Your task to perform on an android device: Open wifi settings Image 0: 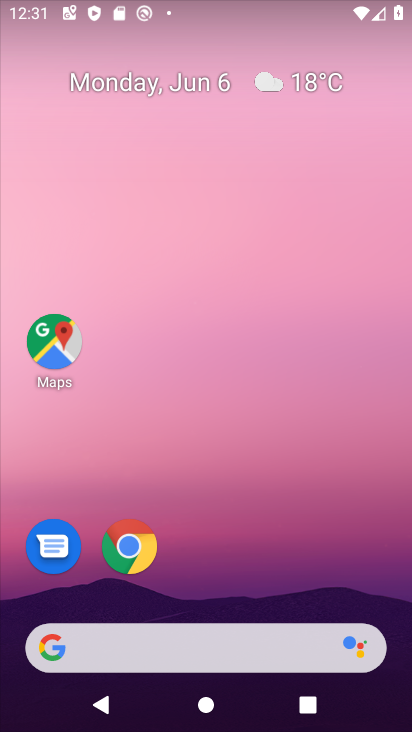
Step 0: drag from (227, 416) to (226, 134)
Your task to perform on an android device: Open wifi settings Image 1: 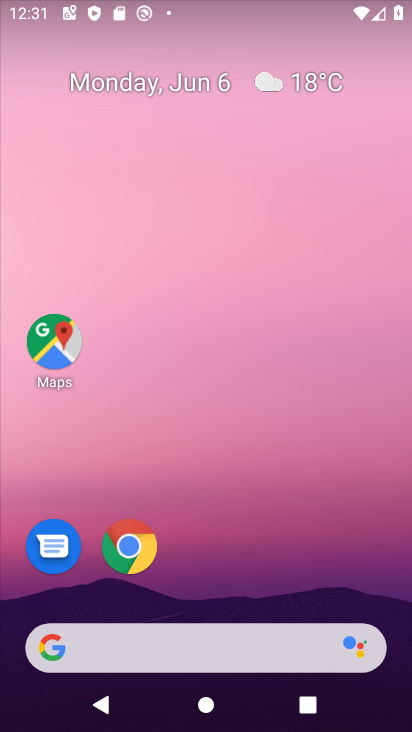
Step 1: drag from (216, 553) to (214, 110)
Your task to perform on an android device: Open wifi settings Image 2: 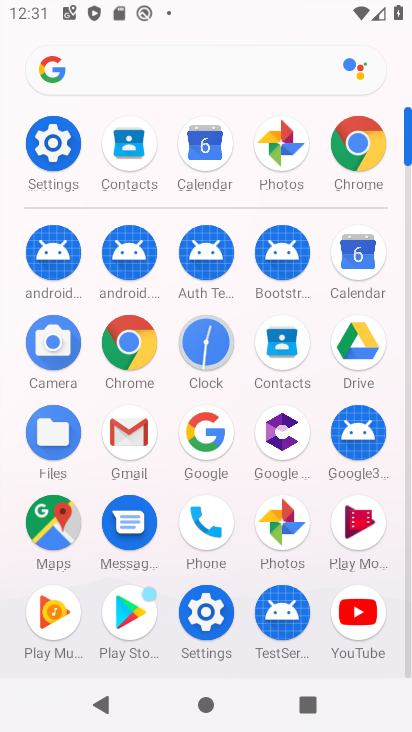
Step 2: click (47, 146)
Your task to perform on an android device: Open wifi settings Image 3: 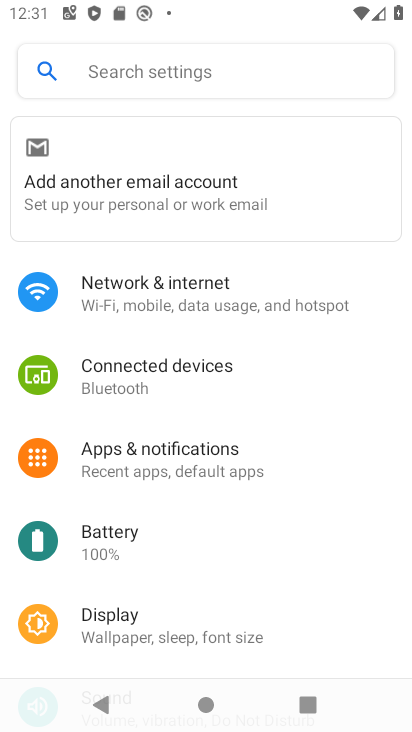
Step 3: click (188, 308)
Your task to perform on an android device: Open wifi settings Image 4: 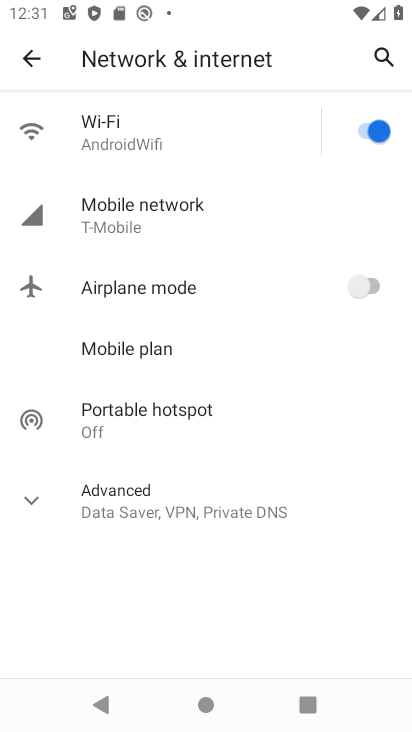
Step 4: click (217, 128)
Your task to perform on an android device: Open wifi settings Image 5: 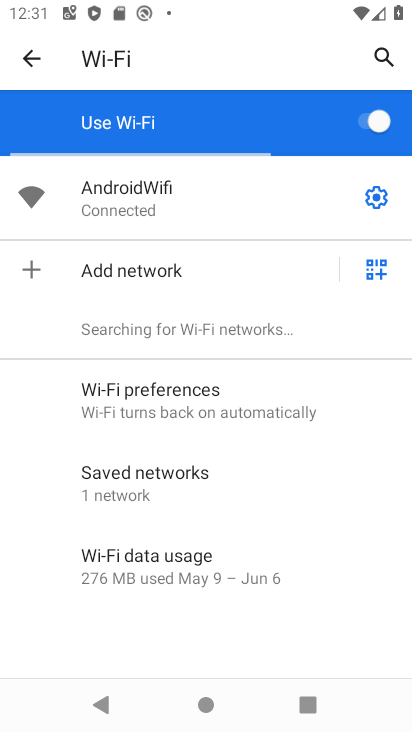
Step 5: task complete